Your task to perform on an android device: open a bookmark in the chrome app Image 0: 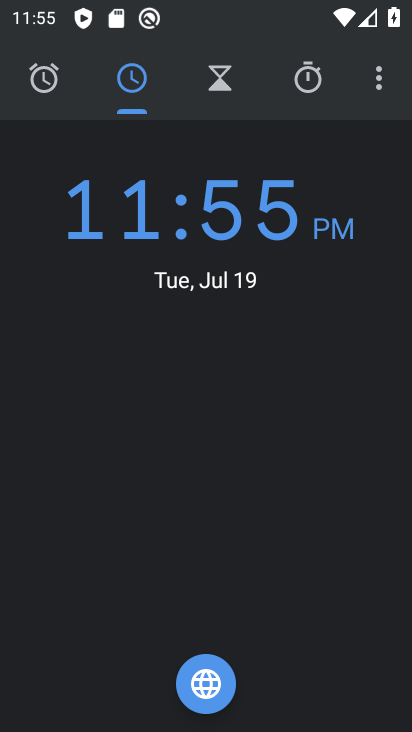
Step 0: press home button
Your task to perform on an android device: open a bookmark in the chrome app Image 1: 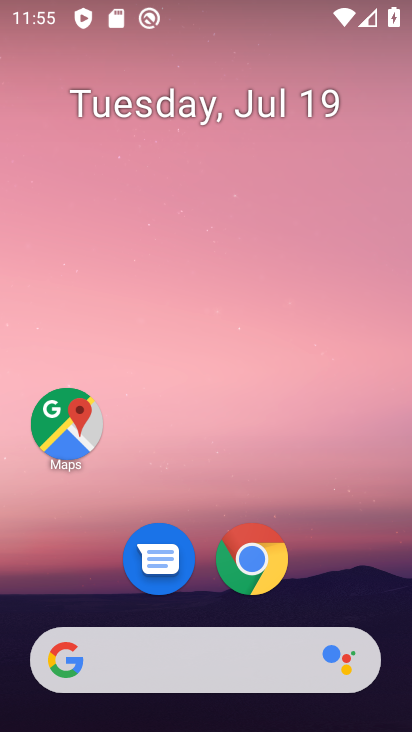
Step 1: drag from (375, 563) to (365, 142)
Your task to perform on an android device: open a bookmark in the chrome app Image 2: 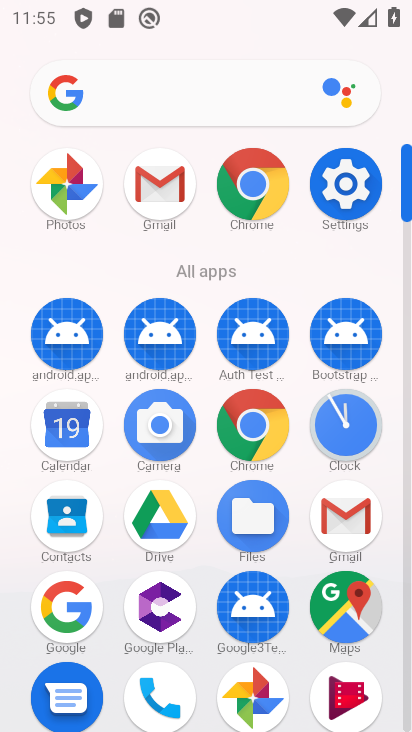
Step 2: click (257, 425)
Your task to perform on an android device: open a bookmark in the chrome app Image 3: 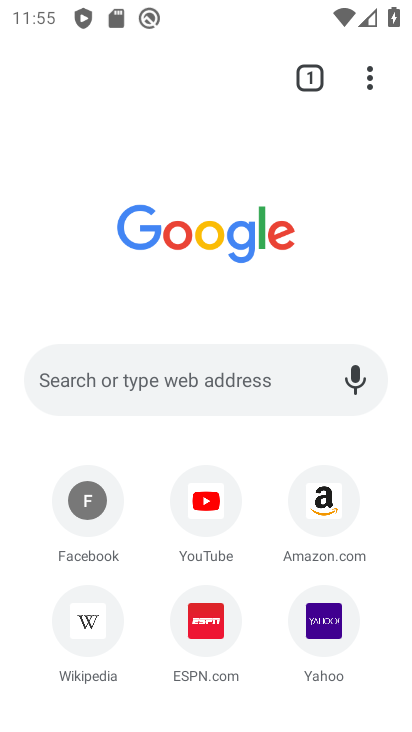
Step 3: click (370, 86)
Your task to perform on an android device: open a bookmark in the chrome app Image 4: 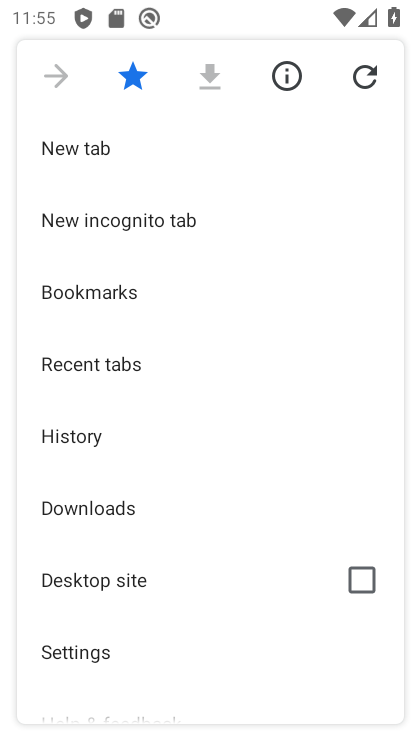
Step 4: click (154, 302)
Your task to perform on an android device: open a bookmark in the chrome app Image 5: 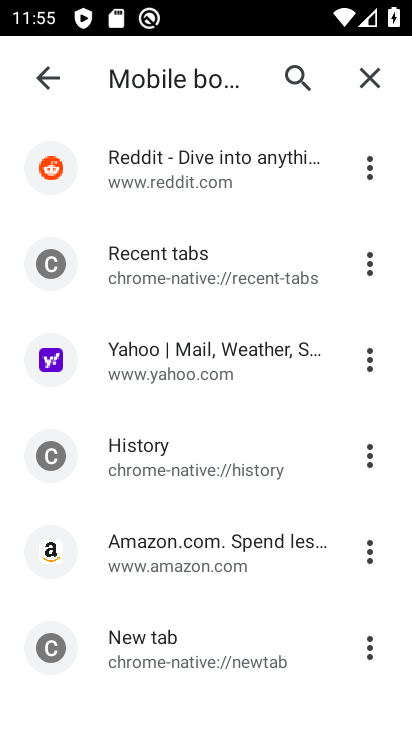
Step 5: click (206, 564)
Your task to perform on an android device: open a bookmark in the chrome app Image 6: 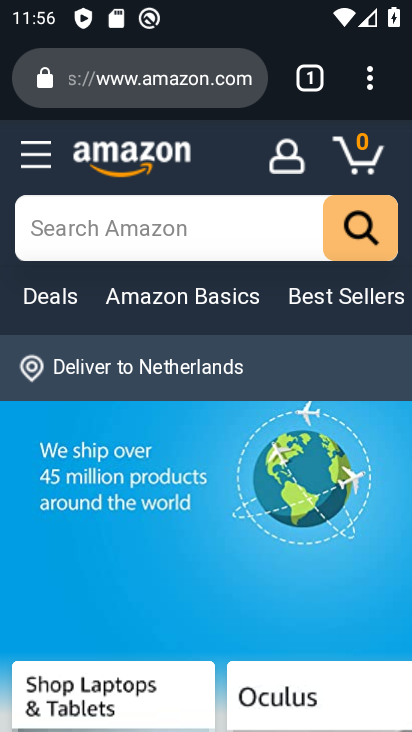
Step 6: task complete